Your task to perform on an android device: open app "HBO Max: Stream TV & Movies" (install if not already installed), go to login, and select forgot password Image 0: 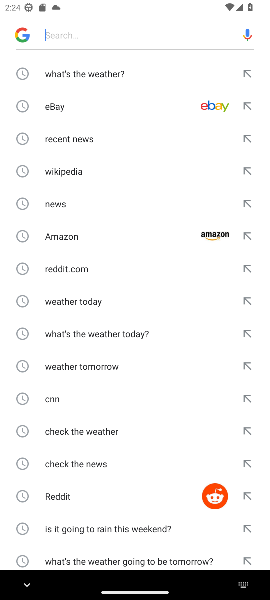
Step 0: press home button
Your task to perform on an android device: open app "HBO Max: Stream TV & Movies" (install if not already installed), go to login, and select forgot password Image 1: 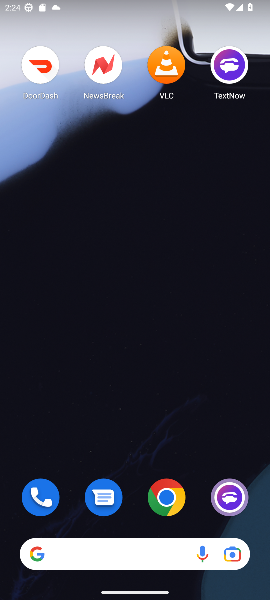
Step 1: drag from (137, 506) to (145, 85)
Your task to perform on an android device: open app "HBO Max: Stream TV & Movies" (install if not already installed), go to login, and select forgot password Image 2: 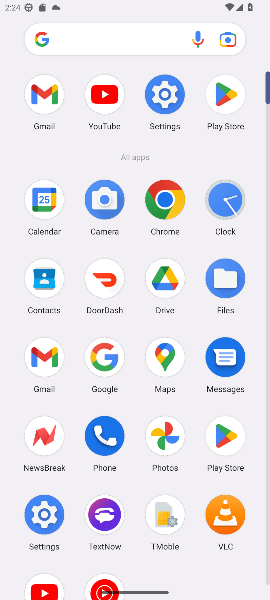
Step 2: click (223, 89)
Your task to perform on an android device: open app "HBO Max: Stream TV & Movies" (install if not already installed), go to login, and select forgot password Image 3: 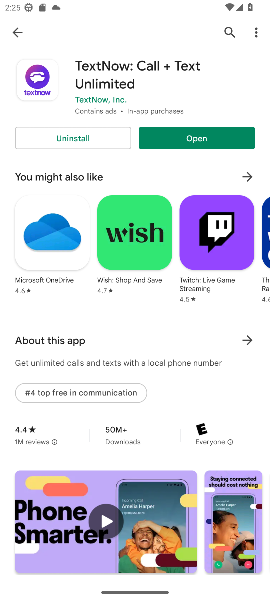
Step 3: click (19, 30)
Your task to perform on an android device: open app "HBO Max: Stream TV & Movies" (install if not already installed), go to login, and select forgot password Image 4: 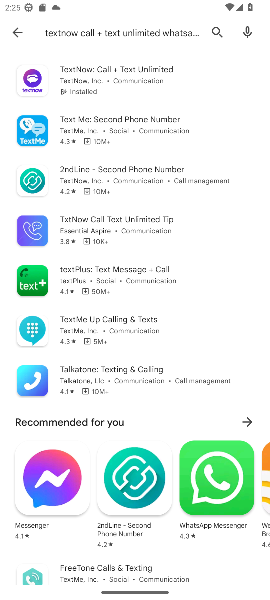
Step 4: click (12, 24)
Your task to perform on an android device: open app "HBO Max: Stream TV & Movies" (install if not already installed), go to login, and select forgot password Image 5: 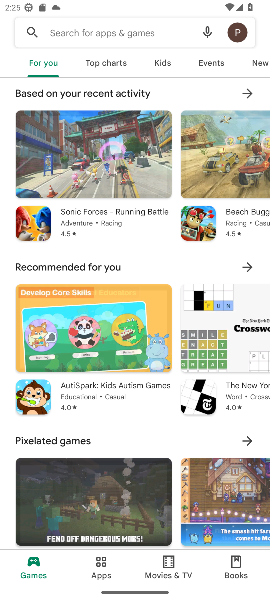
Step 5: click (75, 24)
Your task to perform on an android device: open app "HBO Max: Stream TV & Movies" (install if not already installed), go to login, and select forgot password Image 6: 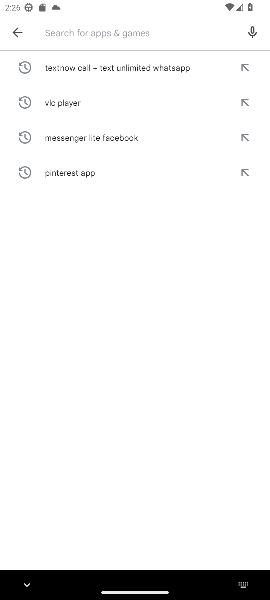
Step 6: click (137, 35)
Your task to perform on an android device: open app "HBO Max: Stream TV & Movies" (install if not already installed), go to login, and select forgot password Image 7: 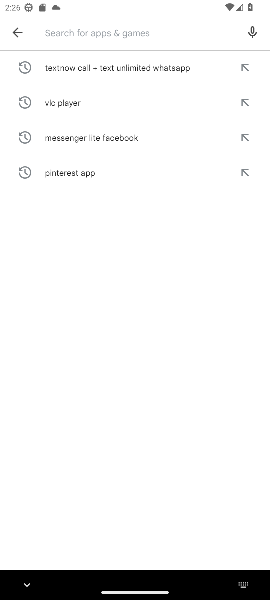
Step 7: type "HBO "
Your task to perform on an android device: open app "HBO Max: Stream TV & Movies" (install if not already installed), go to login, and select forgot password Image 8: 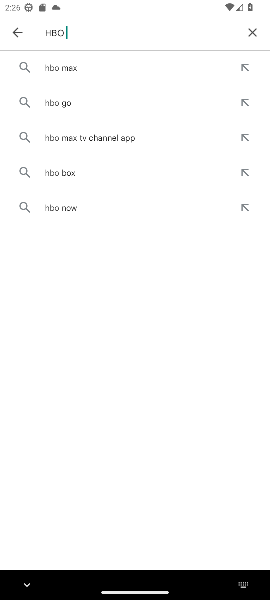
Step 8: click (77, 62)
Your task to perform on an android device: open app "HBO Max: Stream TV & Movies" (install if not already installed), go to login, and select forgot password Image 9: 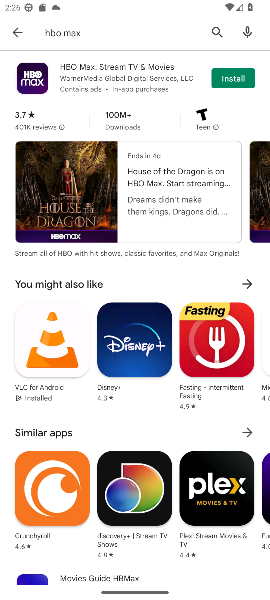
Step 9: click (230, 68)
Your task to perform on an android device: open app "HBO Max: Stream TV & Movies" (install if not already installed), go to login, and select forgot password Image 10: 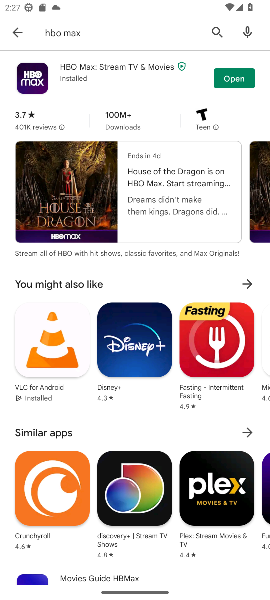
Step 10: task complete